Your task to perform on an android device: Open wifi settings Image 0: 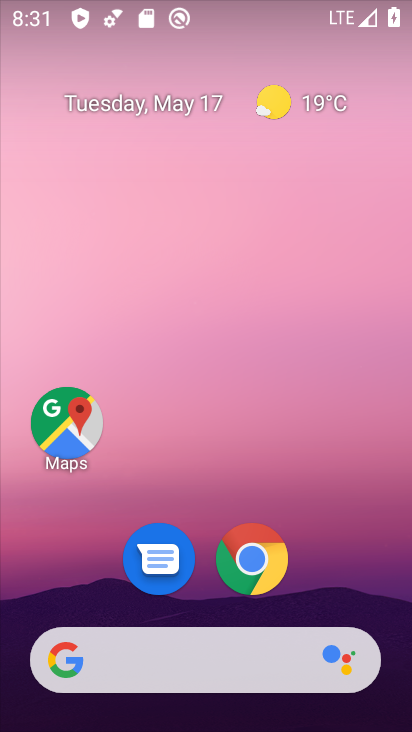
Step 0: drag from (250, 594) to (193, 10)
Your task to perform on an android device: Open wifi settings Image 1: 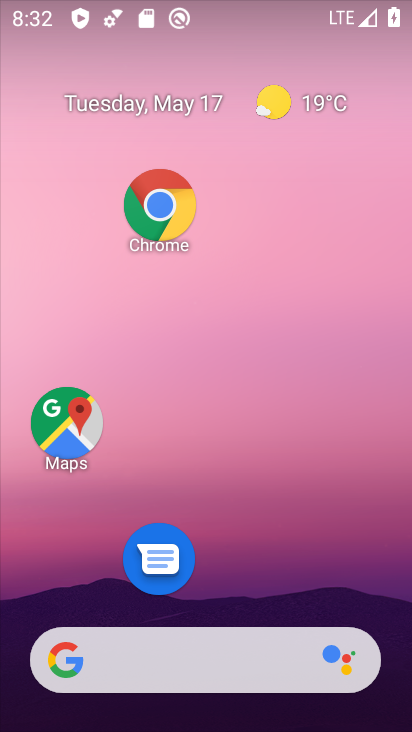
Step 1: drag from (225, 587) to (225, 193)
Your task to perform on an android device: Open wifi settings Image 2: 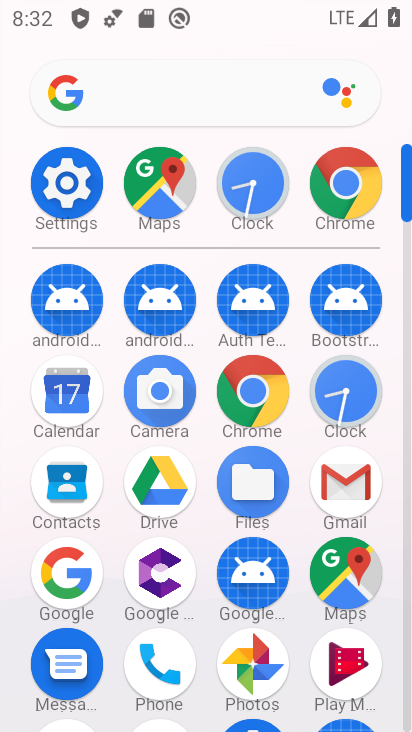
Step 2: click (54, 192)
Your task to perform on an android device: Open wifi settings Image 3: 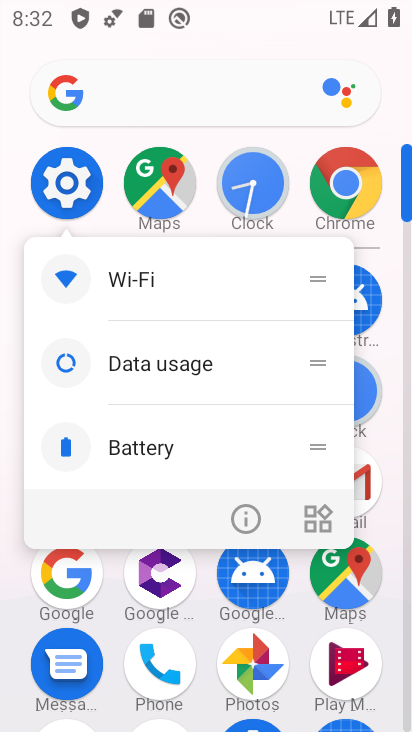
Step 3: click (258, 509)
Your task to perform on an android device: Open wifi settings Image 4: 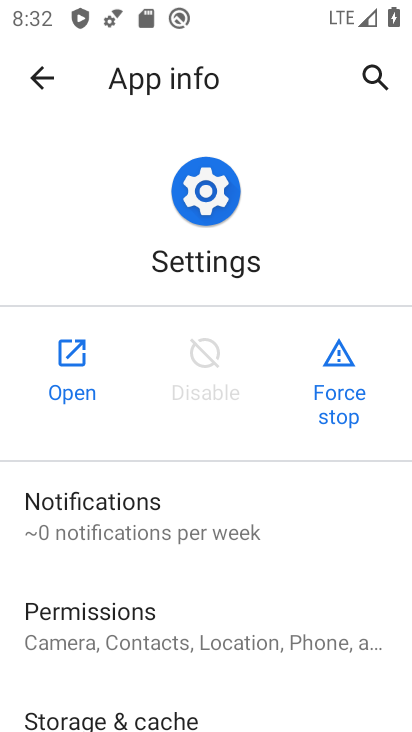
Step 4: click (87, 375)
Your task to perform on an android device: Open wifi settings Image 5: 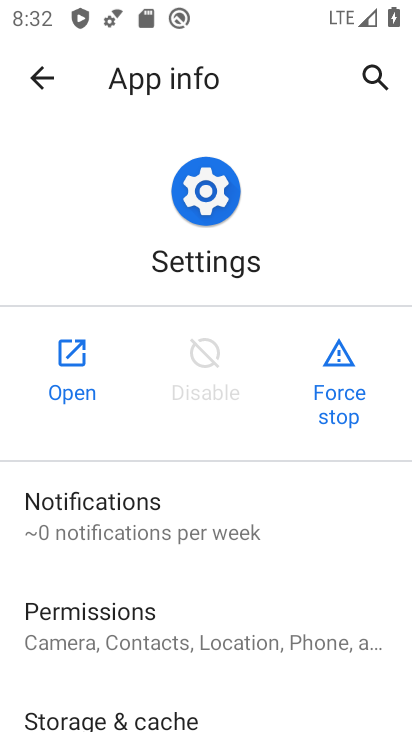
Step 5: click (87, 375)
Your task to perform on an android device: Open wifi settings Image 6: 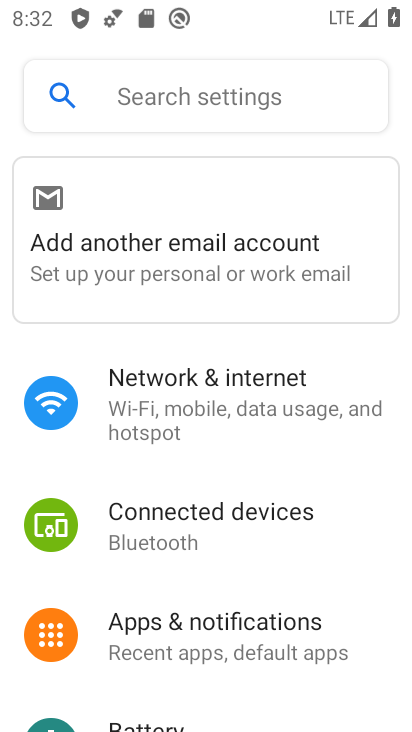
Step 6: click (213, 390)
Your task to perform on an android device: Open wifi settings Image 7: 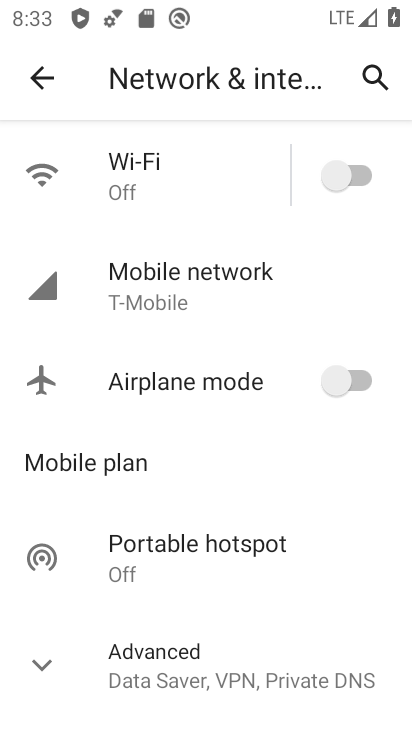
Step 7: click (144, 187)
Your task to perform on an android device: Open wifi settings Image 8: 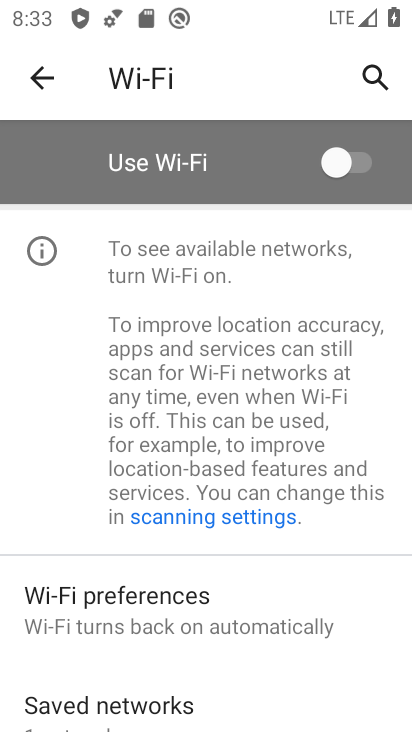
Step 8: task complete